Your task to perform on an android device: Do I have any events today? Image 0: 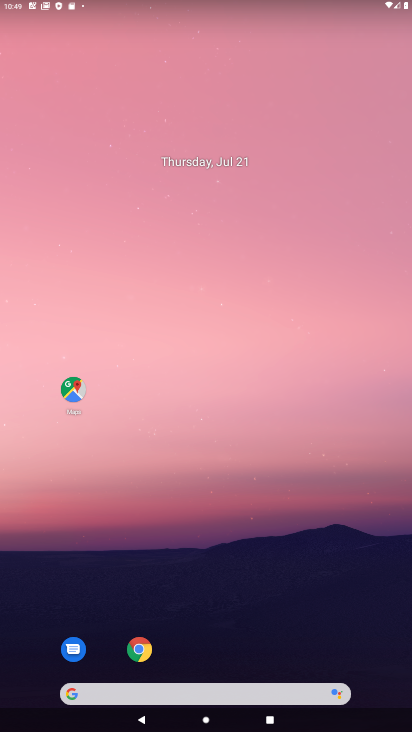
Step 0: drag from (269, 625) to (271, 76)
Your task to perform on an android device: Do I have any events today? Image 1: 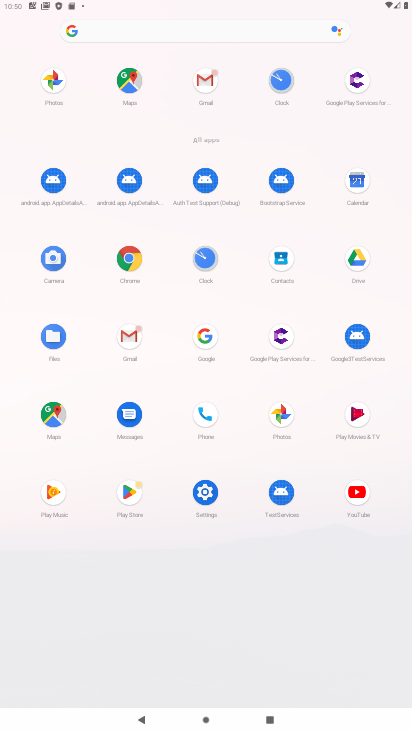
Step 1: click (357, 183)
Your task to perform on an android device: Do I have any events today? Image 2: 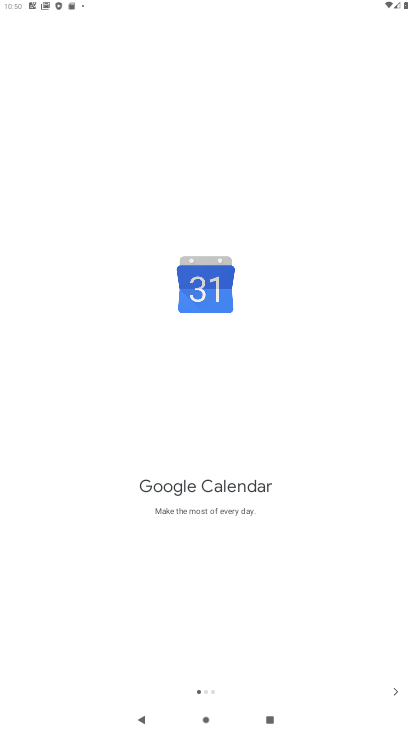
Step 2: click (401, 699)
Your task to perform on an android device: Do I have any events today? Image 3: 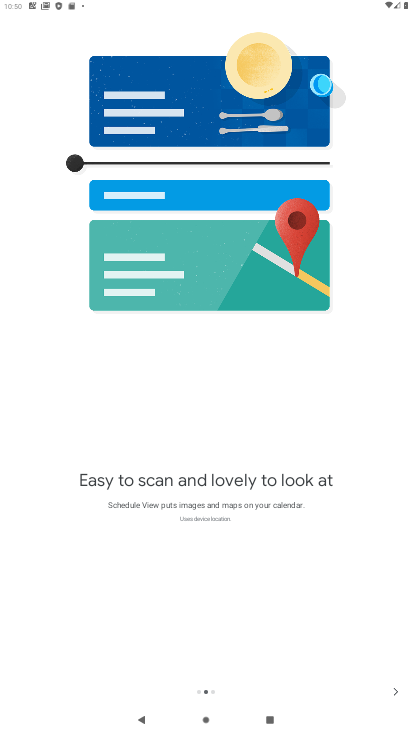
Step 3: click (401, 699)
Your task to perform on an android device: Do I have any events today? Image 4: 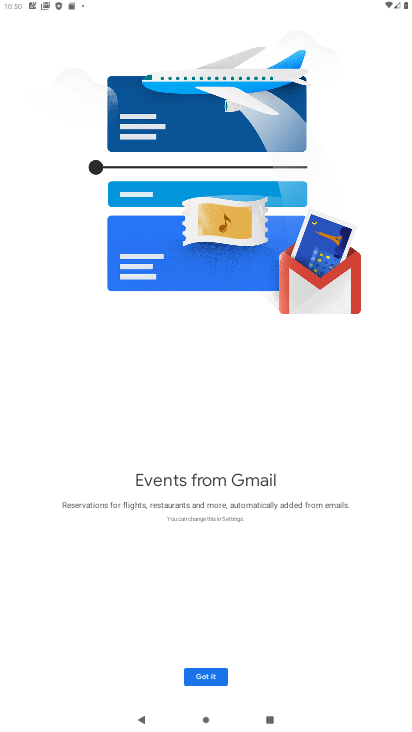
Step 4: click (199, 679)
Your task to perform on an android device: Do I have any events today? Image 5: 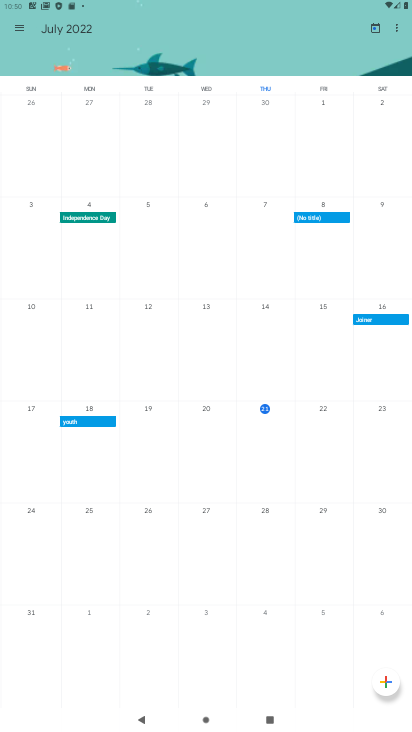
Step 5: click (268, 437)
Your task to perform on an android device: Do I have any events today? Image 6: 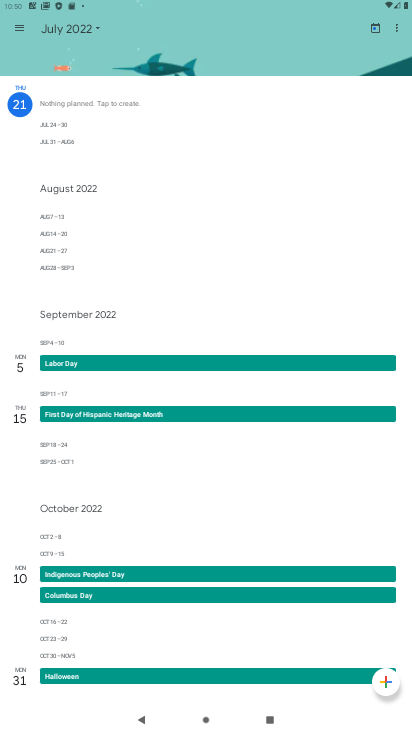
Step 6: task complete